Your task to perform on an android device: Open Maps and search for coffee Image 0: 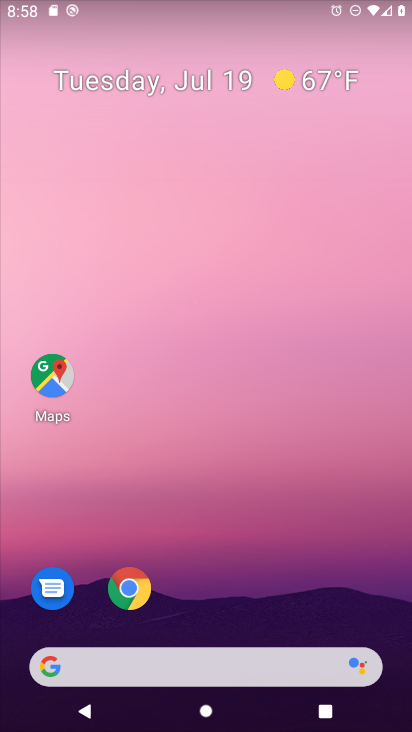
Step 0: drag from (355, 575) to (370, 66)
Your task to perform on an android device: Open Maps and search for coffee Image 1: 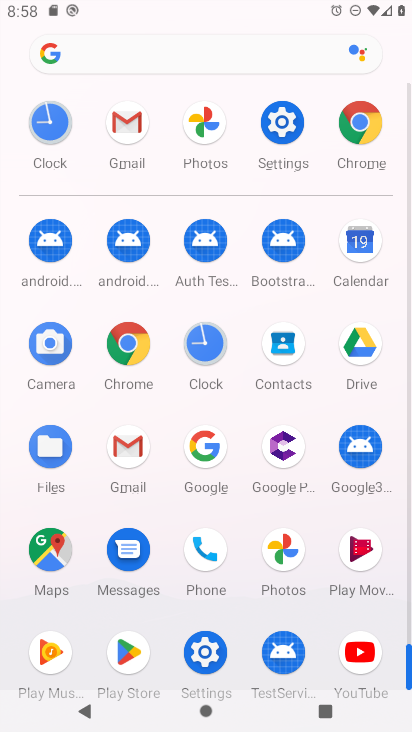
Step 1: click (56, 553)
Your task to perform on an android device: Open Maps and search for coffee Image 2: 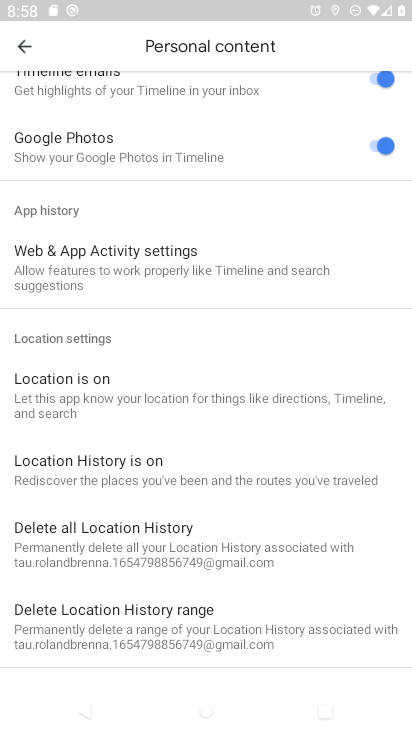
Step 2: press back button
Your task to perform on an android device: Open Maps and search for coffee Image 3: 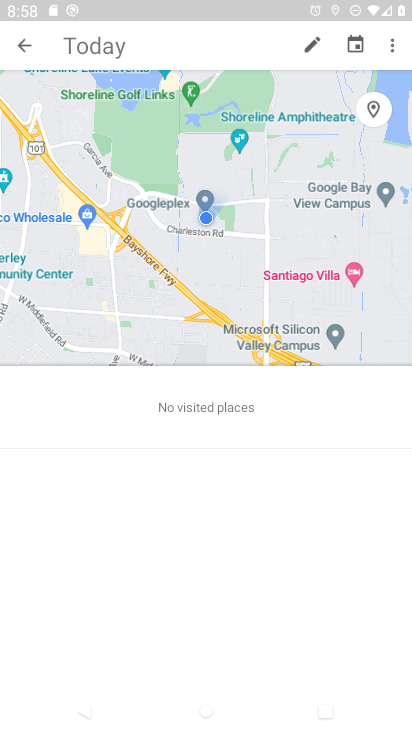
Step 3: press back button
Your task to perform on an android device: Open Maps and search for coffee Image 4: 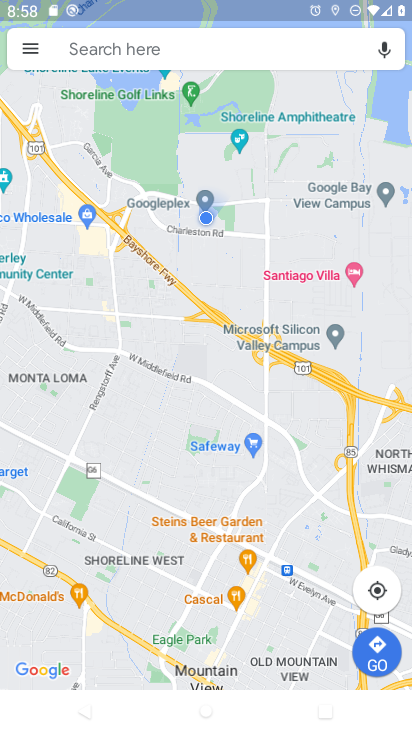
Step 4: click (223, 50)
Your task to perform on an android device: Open Maps and search for coffee Image 5: 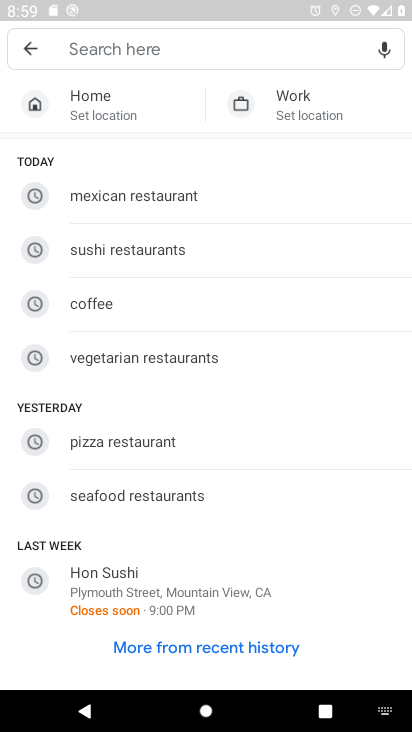
Step 5: type "coffee"
Your task to perform on an android device: Open Maps and search for coffee Image 6: 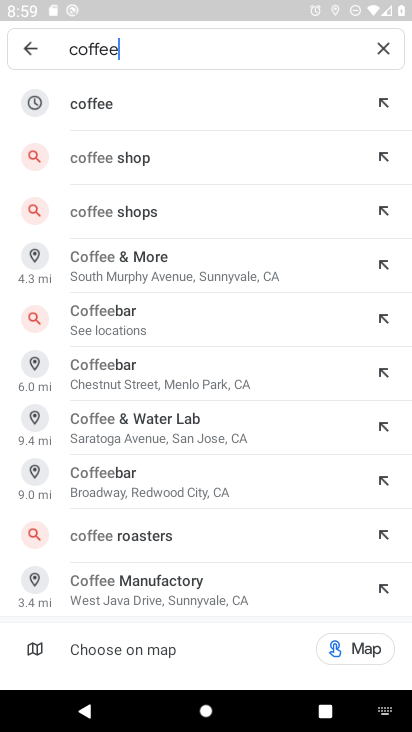
Step 6: click (250, 108)
Your task to perform on an android device: Open Maps and search for coffee Image 7: 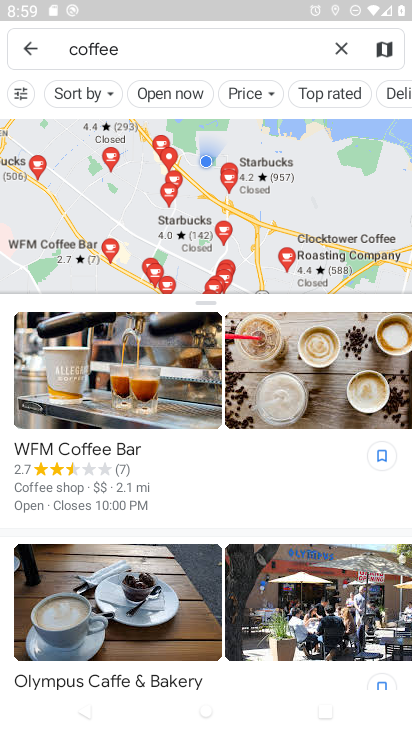
Step 7: task complete